Your task to perform on an android device: Go to settings Image 0: 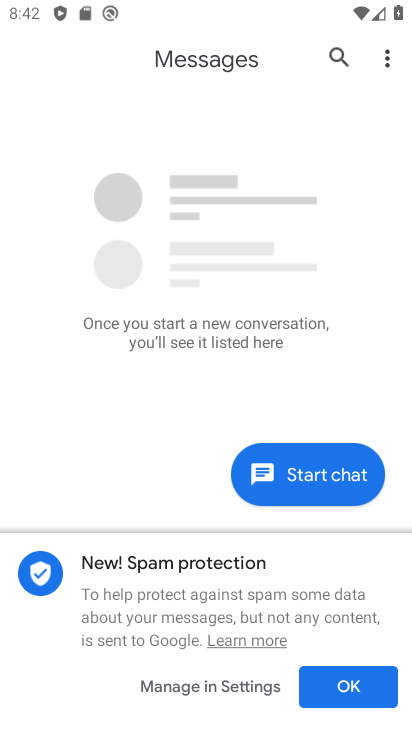
Step 0: press home button
Your task to perform on an android device: Go to settings Image 1: 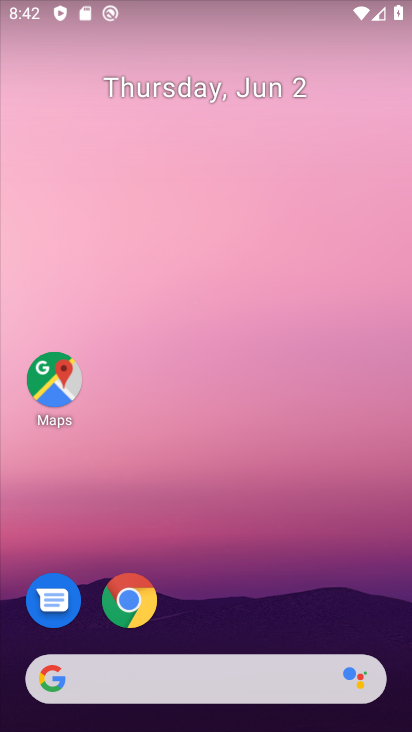
Step 1: drag from (206, 643) to (234, 45)
Your task to perform on an android device: Go to settings Image 2: 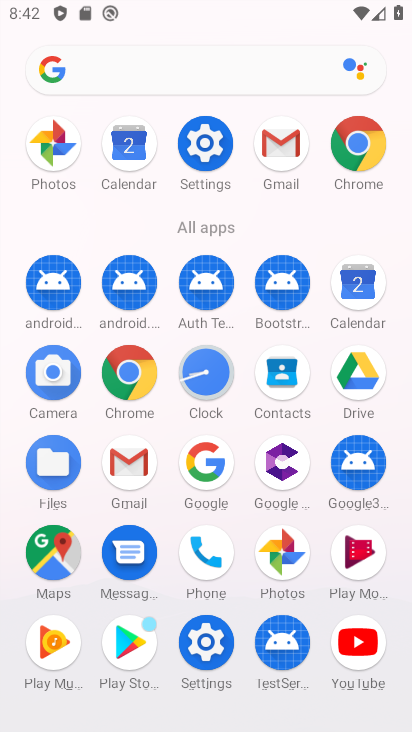
Step 2: click (208, 654)
Your task to perform on an android device: Go to settings Image 3: 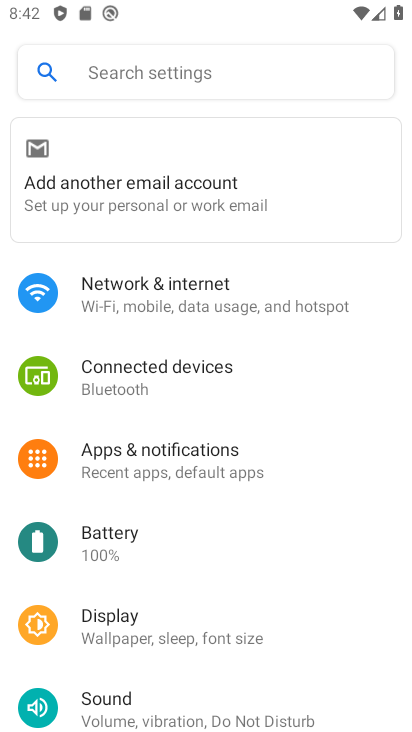
Step 3: task complete